Your task to perform on an android device: turn on the 24-hour format for clock Image 0: 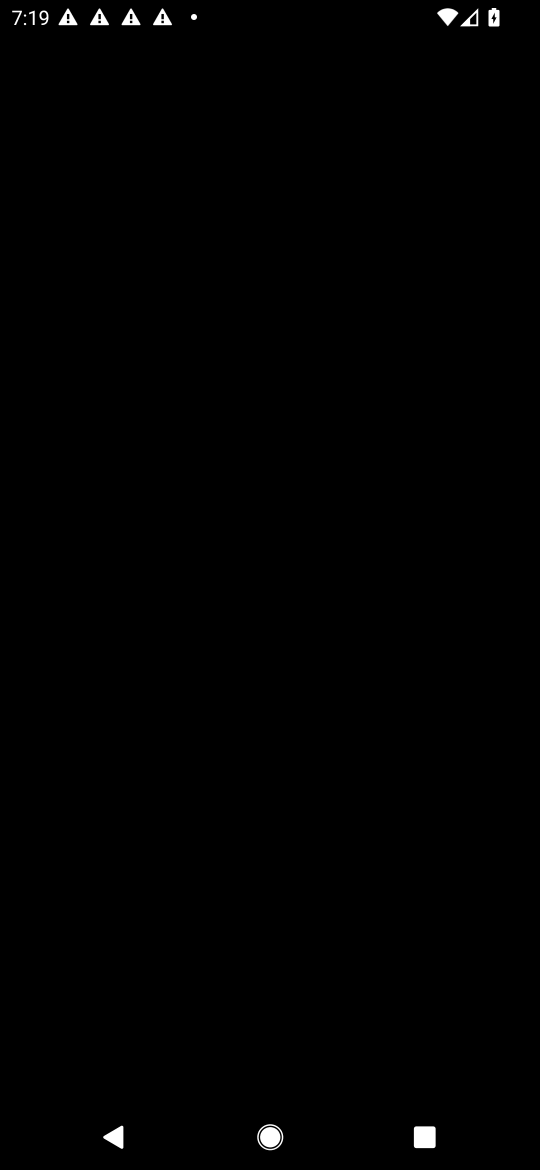
Step 0: press home button
Your task to perform on an android device: turn on the 24-hour format for clock Image 1: 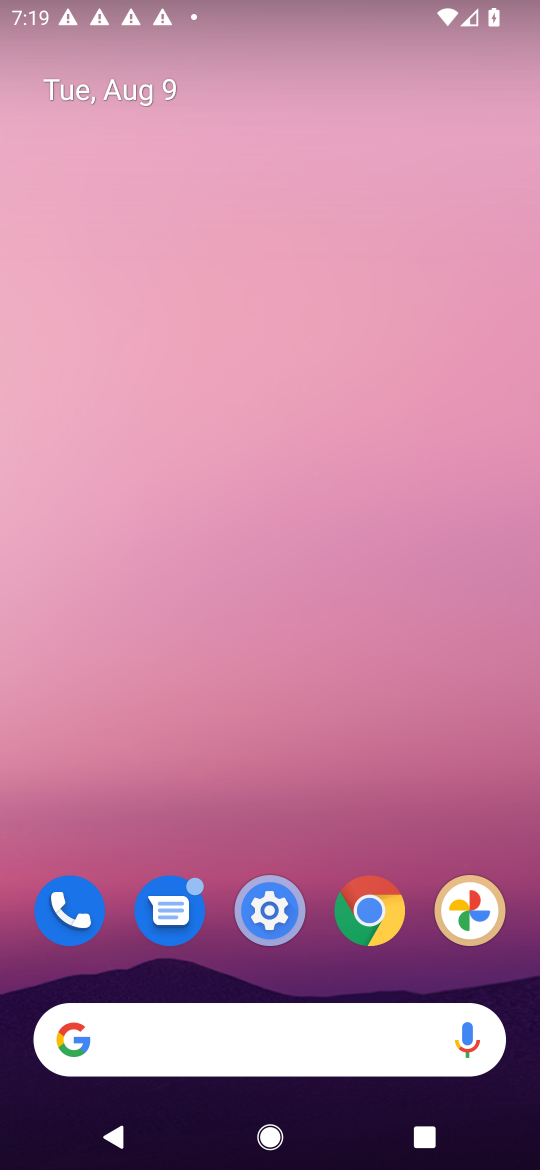
Step 1: drag from (295, 932) to (352, 60)
Your task to perform on an android device: turn on the 24-hour format for clock Image 2: 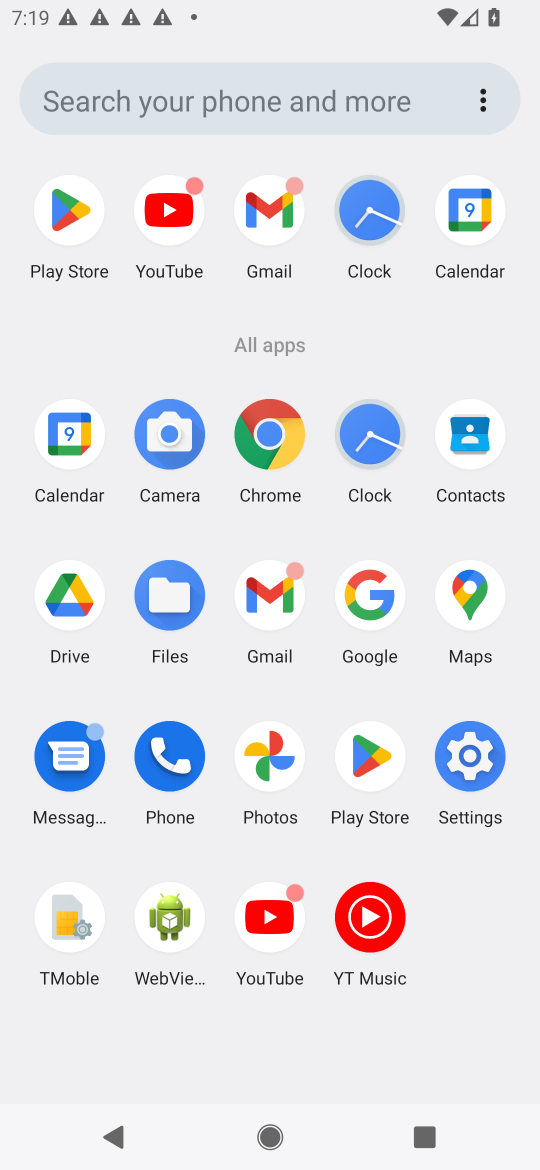
Step 2: click (367, 484)
Your task to perform on an android device: turn on the 24-hour format for clock Image 3: 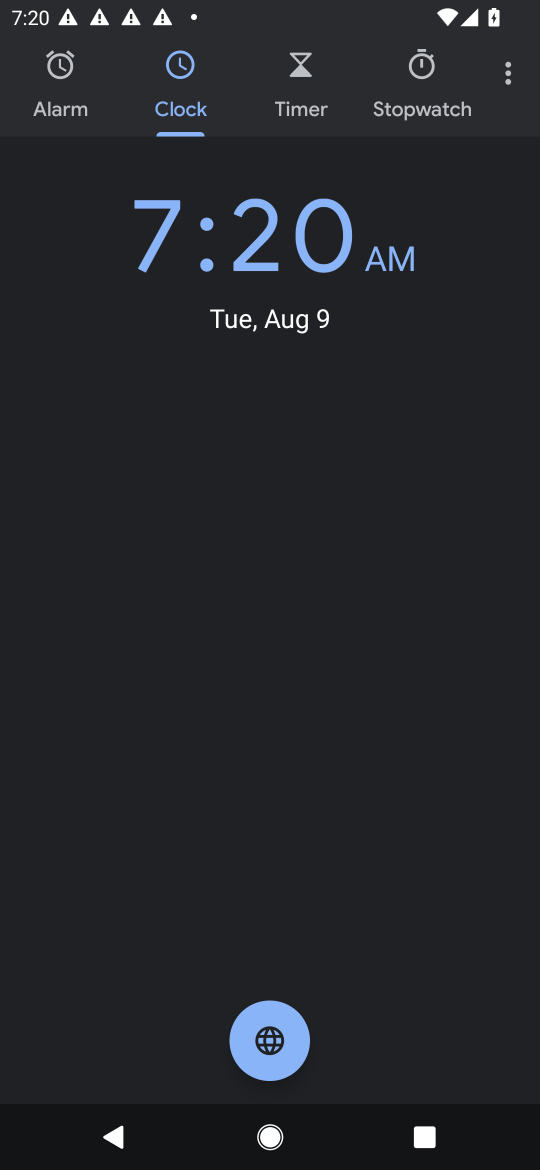
Step 3: click (536, 68)
Your task to perform on an android device: turn on the 24-hour format for clock Image 4: 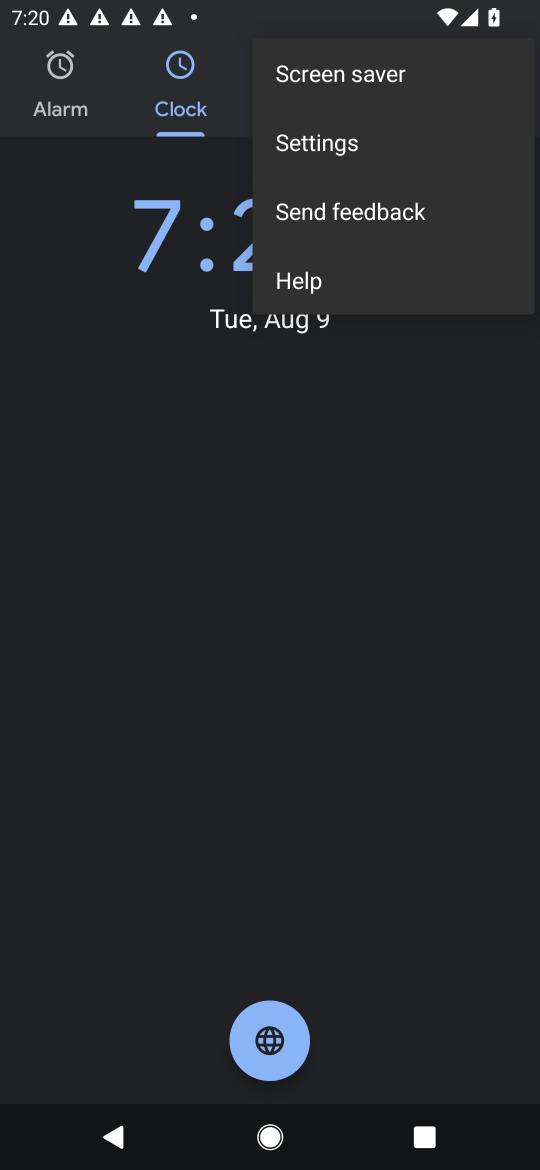
Step 4: click (313, 145)
Your task to perform on an android device: turn on the 24-hour format for clock Image 5: 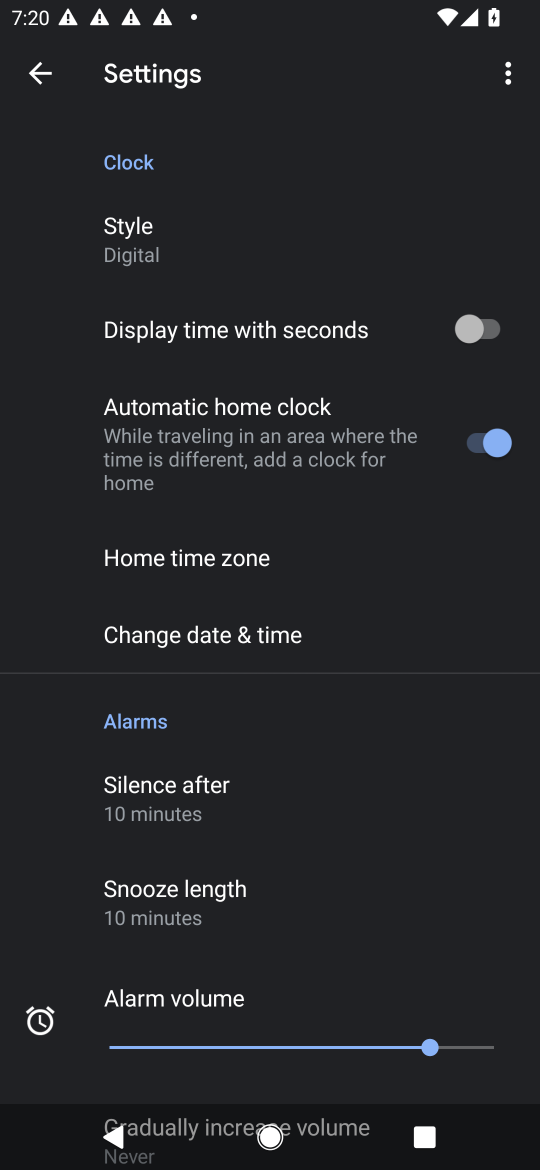
Step 5: click (194, 638)
Your task to perform on an android device: turn on the 24-hour format for clock Image 6: 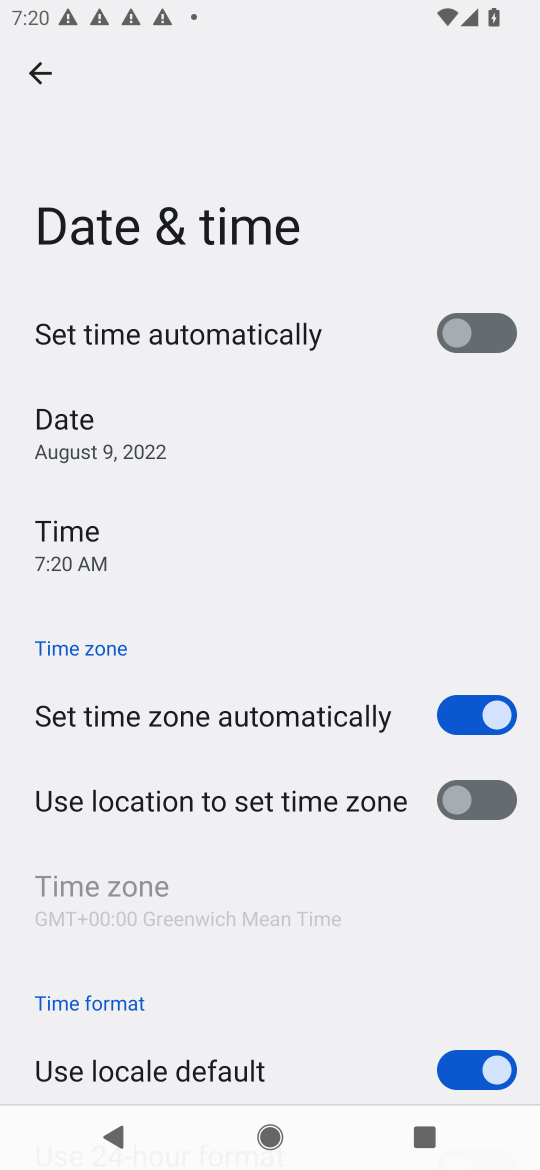
Step 6: task complete